Your task to perform on an android device: What is the recent news? Image 0: 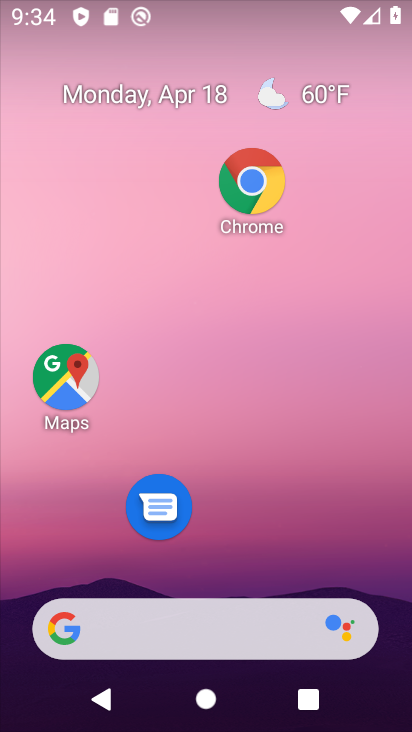
Step 0: drag from (24, 276) to (411, 326)
Your task to perform on an android device: What is the recent news? Image 1: 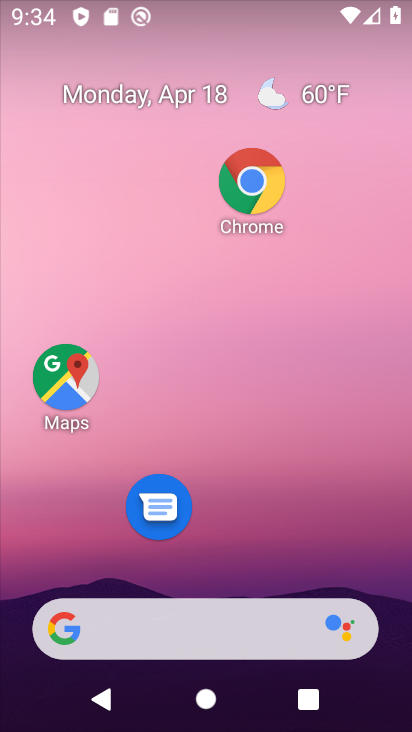
Step 1: task complete